Your task to perform on an android device: turn off translation in the chrome app Image 0: 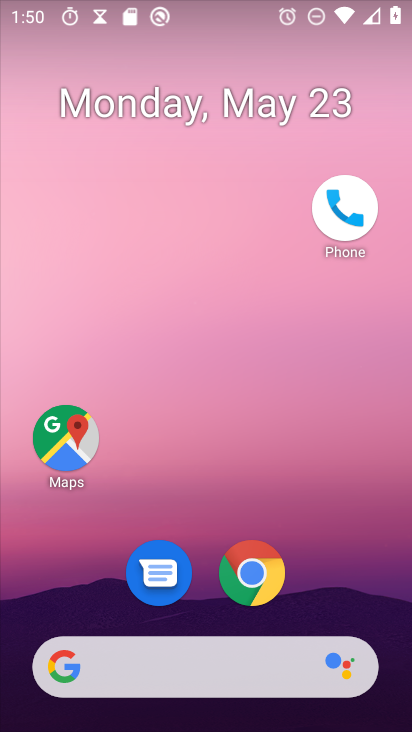
Step 0: press home button
Your task to perform on an android device: turn off translation in the chrome app Image 1: 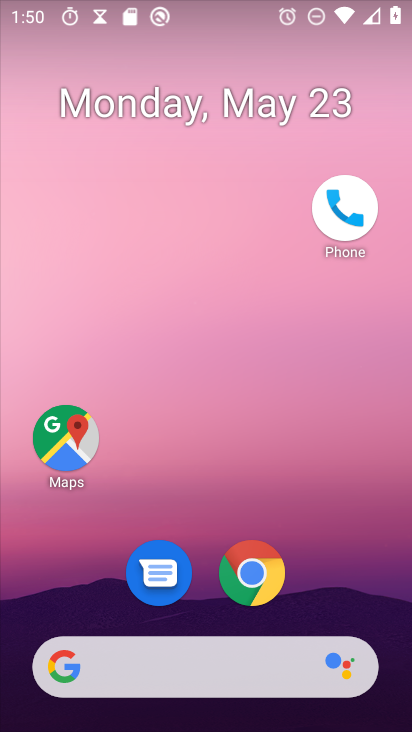
Step 1: click (250, 594)
Your task to perform on an android device: turn off translation in the chrome app Image 2: 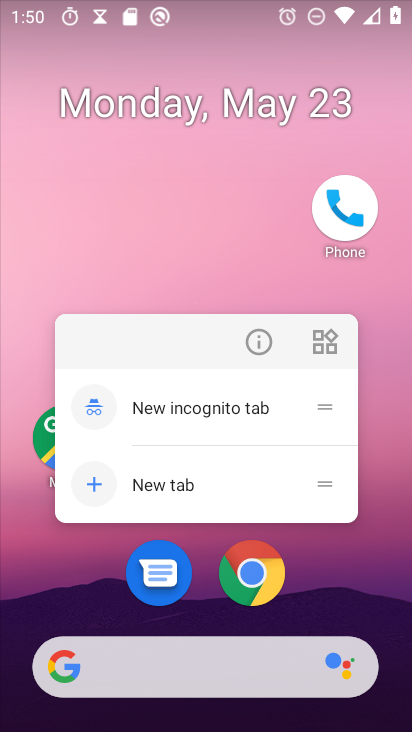
Step 2: click (247, 580)
Your task to perform on an android device: turn off translation in the chrome app Image 3: 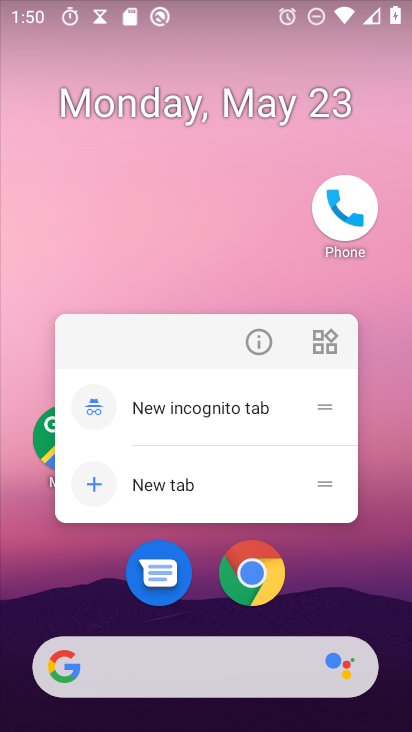
Step 3: click (260, 572)
Your task to perform on an android device: turn off translation in the chrome app Image 4: 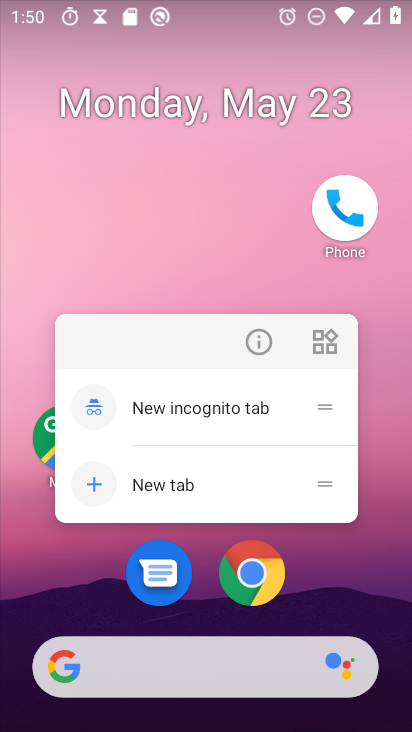
Step 4: click (255, 580)
Your task to perform on an android device: turn off translation in the chrome app Image 5: 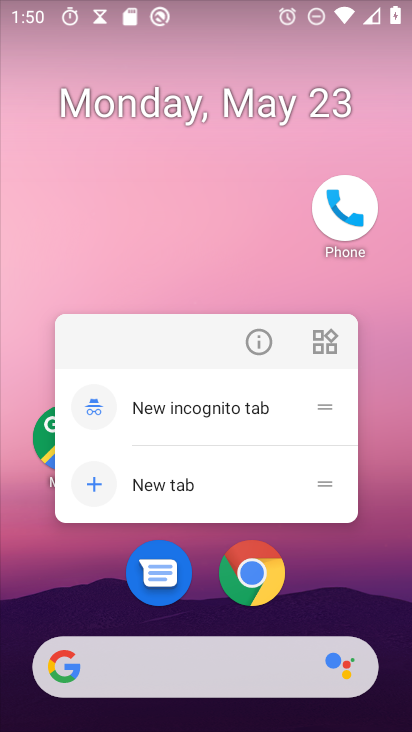
Step 5: click (255, 580)
Your task to perform on an android device: turn off translation in the chrome app Image 6: 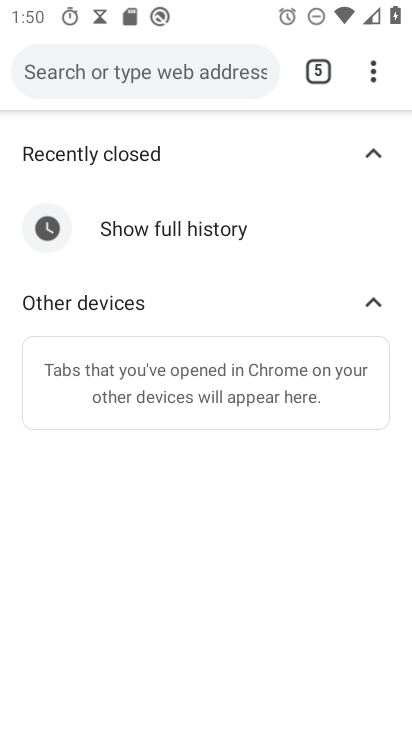
Step 6: drag from (374, 79) to (207, 601)
Your task to perform on an android device: turn off translation in the chrome app Image 7: 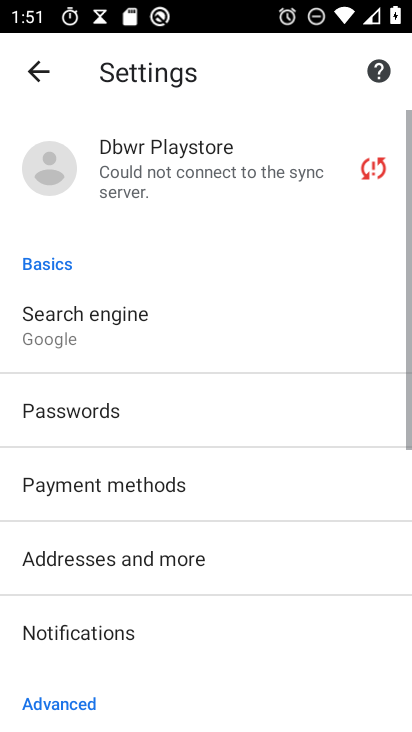
Step 7: drag from (193, 676) to (226, 186)
Your task to perform on an android device: turn off translation in the chrome app Image 8: 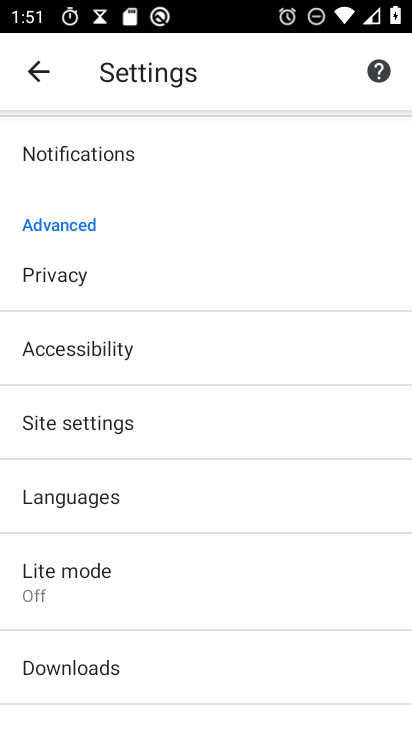
Step 8: click (116, 499)
Your task to perform on an android device: turn off translation in the chrome app Image 9: 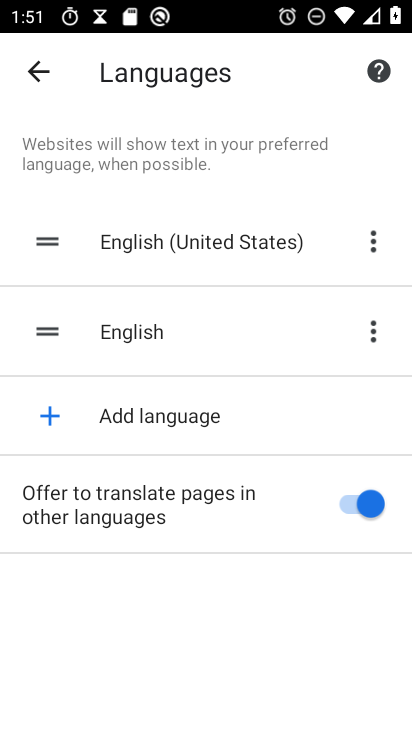
Step 9: click (340, 507)
Your task to perform on an android device: turn off translation in the chrome app Image 10: 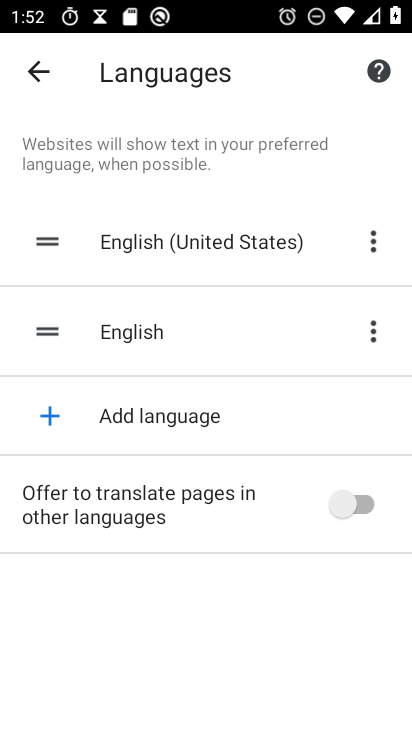
Step 10: task complete